Your task to perform on an android device: see creations saved in the google photos Image 0: 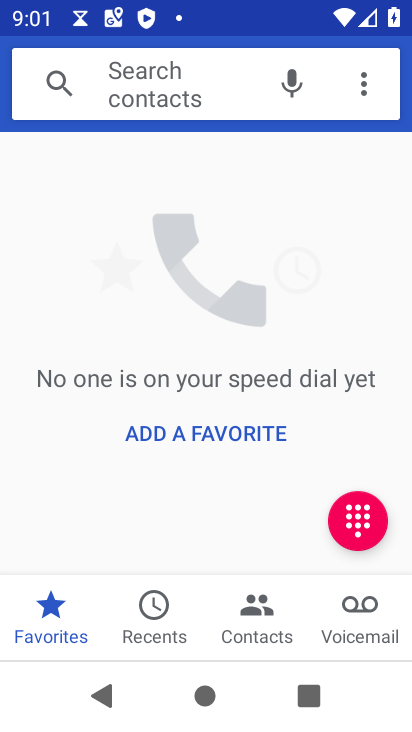
Step 0: press home button
Your task to perform on an android device: see creations saved in the google photos Image 1: 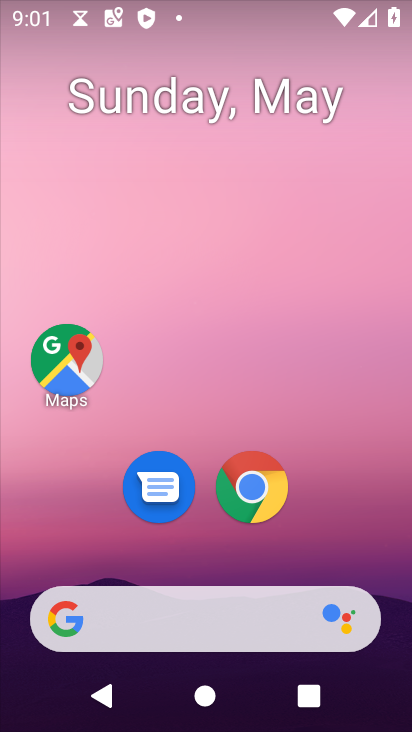
Step 1: drag from (378, 504) to (407, 50)
Your task to perform on an android device: see creations saved in the google photos Image 2: 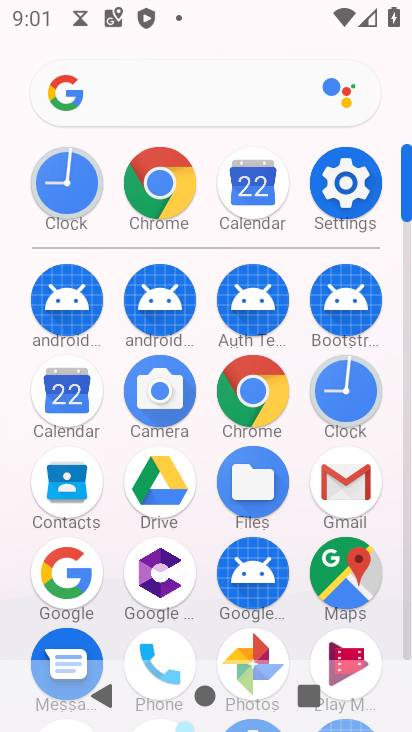
Step 2: drag from (397, 567) to (392, 221)
Your task to perform on an android device: see creations saved in the google photos Image 3: 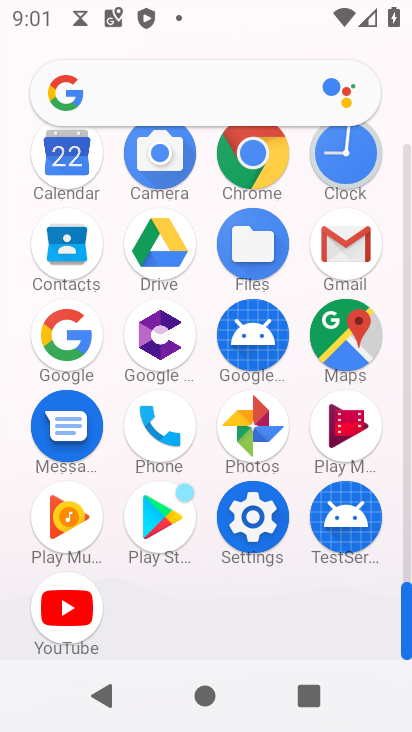
Step 3: click (267, 422)
Your task to perform on an android device: see creations saved in the google photos Image 4: 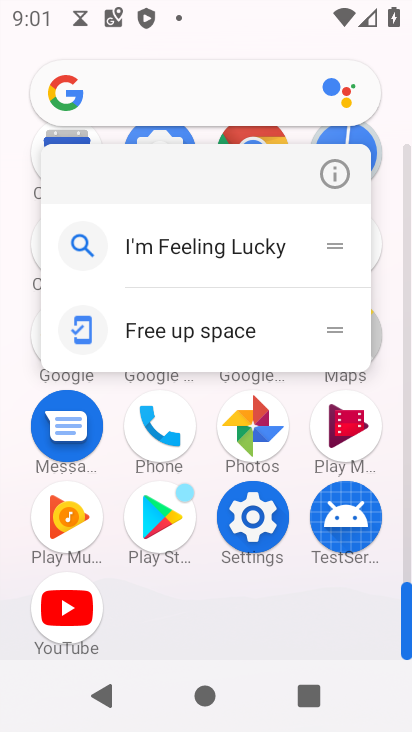
Step 4: click (267, 422)
Your task to perform on an android device: see creations saved in the google photos Image 5: 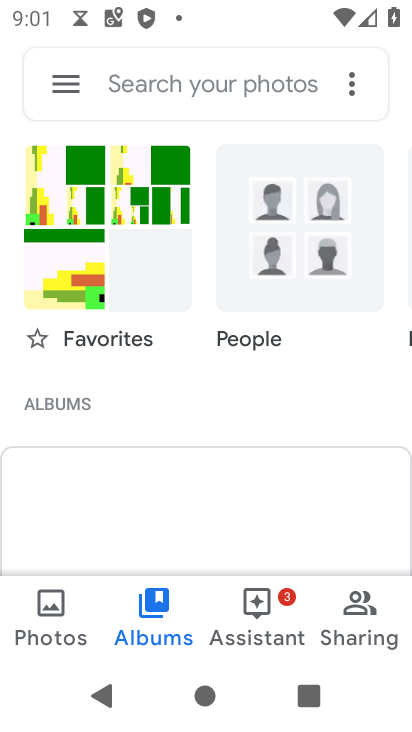
Step 5: task complete